Your task to perform on an android device: Do I have any events today? Image 0: 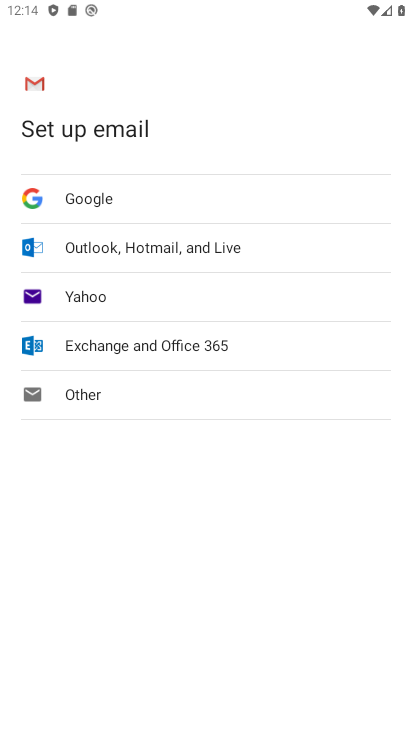
Step 0: press home button
Your task to perform on an android device: Do I have any events today? Image 1: 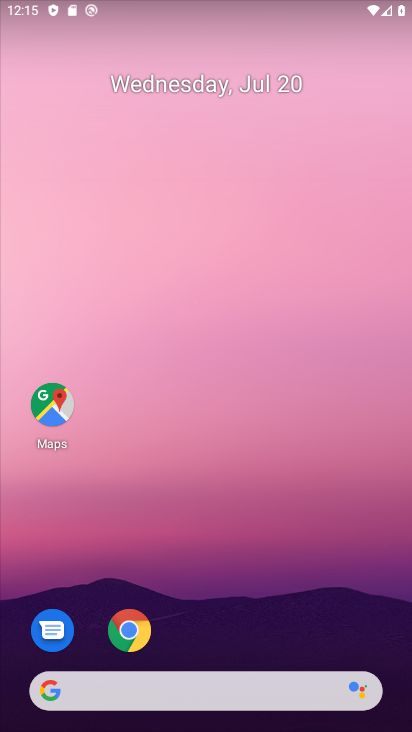
Step 1: drag from (241, 572) to (198, 101)
Your task to perform on an android device: Do I have any events today? Image 2: 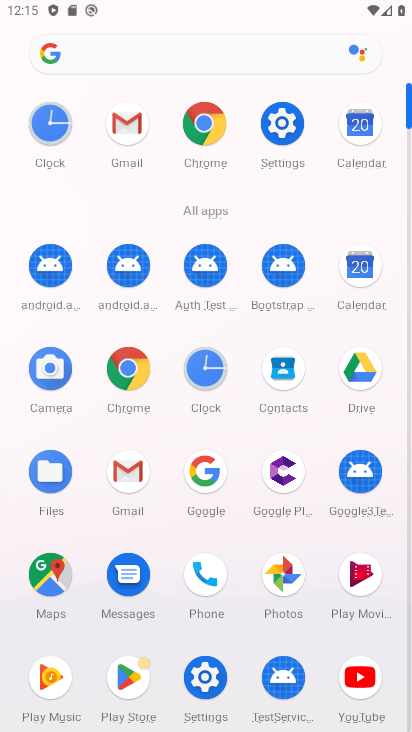
Step 2: click (351, 131)
Your task to perform on an android device: Do I have any events today? Image 3: 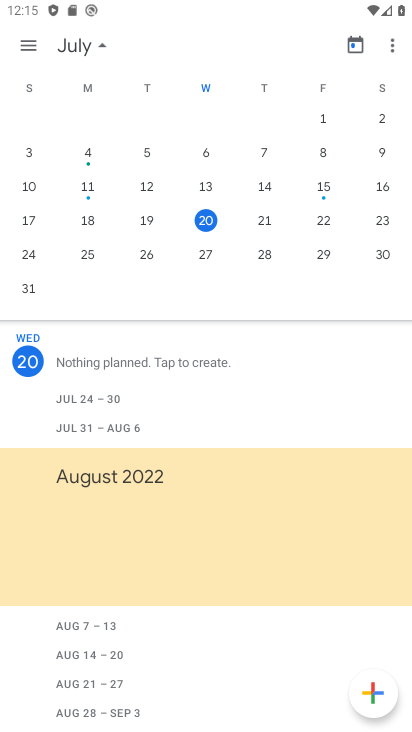
Step 3: click (149, 216)
Your task to perform on an android device: Do I have any events today? Image 4: 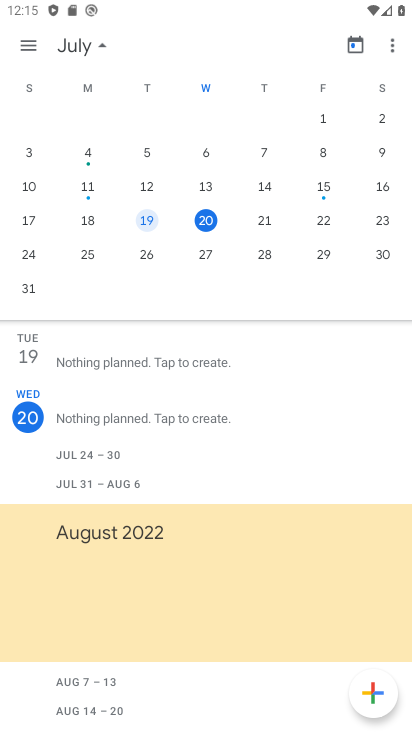
Step 4: click (149, 216)
Your task to perform on an android device: Do I have any events today? Image 5: 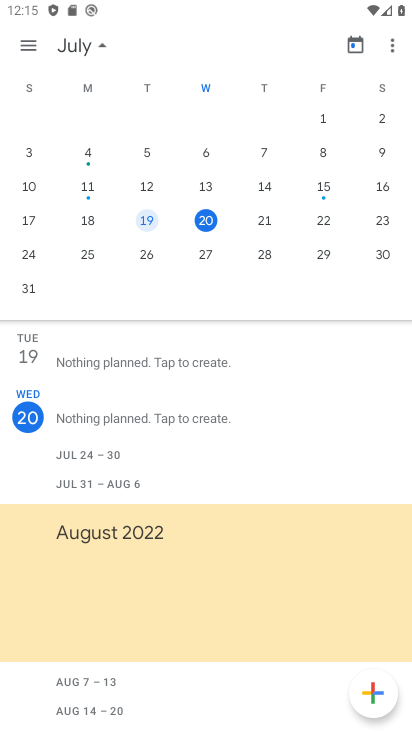
Step 5: click (27, 46)
Your task to perform on an android device: Do I have any events today? Image 6: 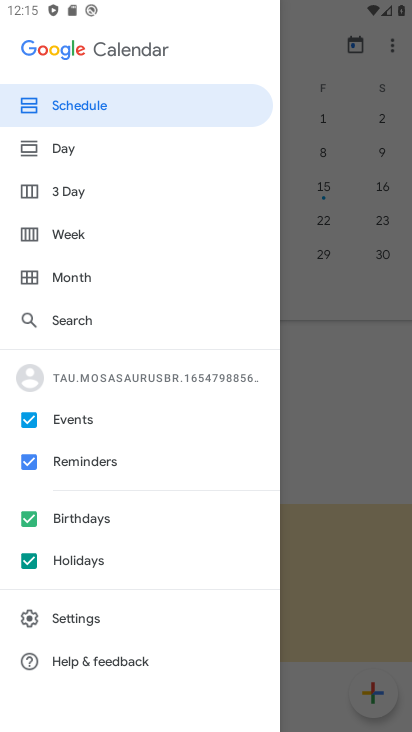
Step 6: click (57, 144)
Your task to perform on an android device: Do I have any events today? Image 7: 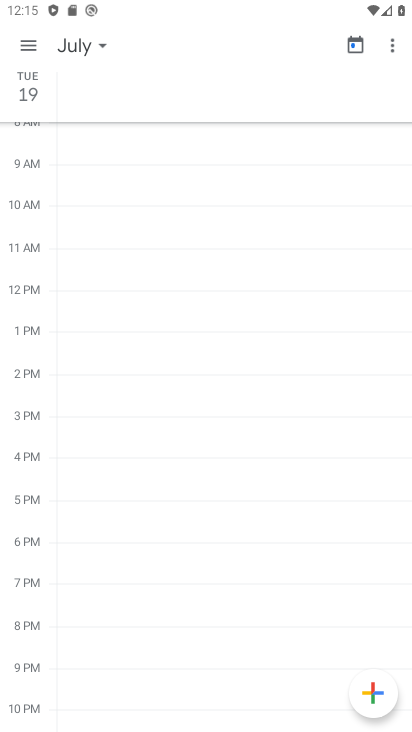
Step 7: task complete